Your task to perform on an android device: Open location settings Image 0: 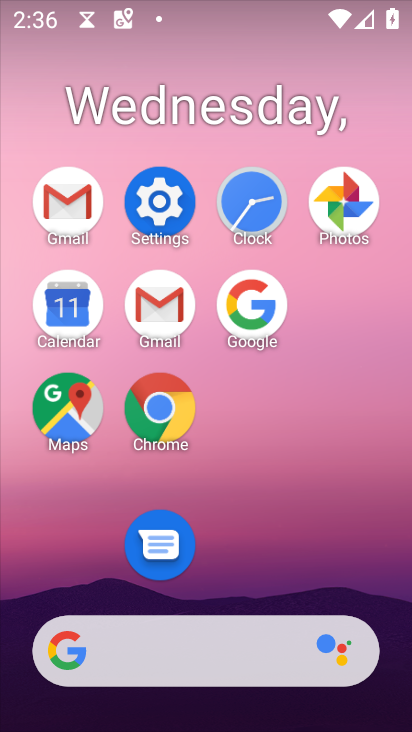
Step 0: click (189, 207)
Your task to perform on an android device: Open location settings Image 1: 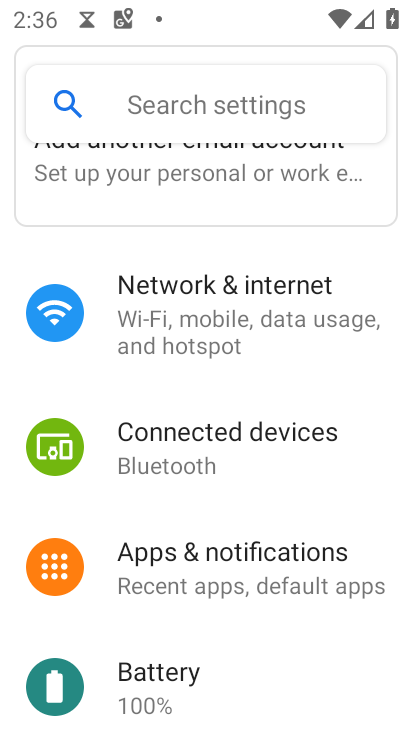
Step 1: drag from (216, 648) to (244, 297)
Your task to perform on an android device: Open location settings Image 2: 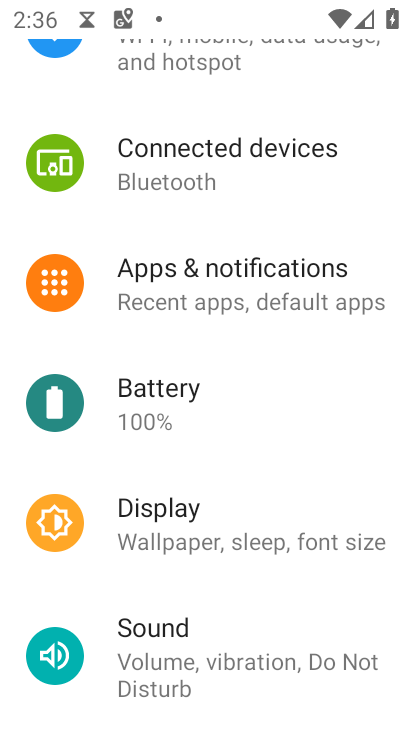
Step 2: drag from (287, 601) to (314, 203)
Your task to perform on an android device: Open location settings Image 3: 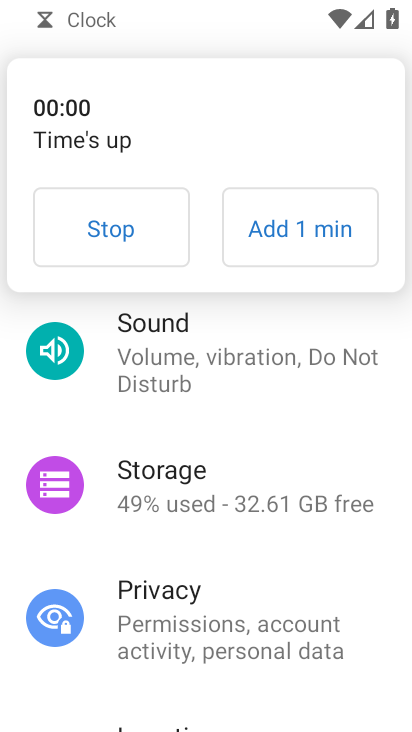
Step 3: drag from (270, 548) to (291, 188)
Your task to perform on an android device: Open location settings Image 4: 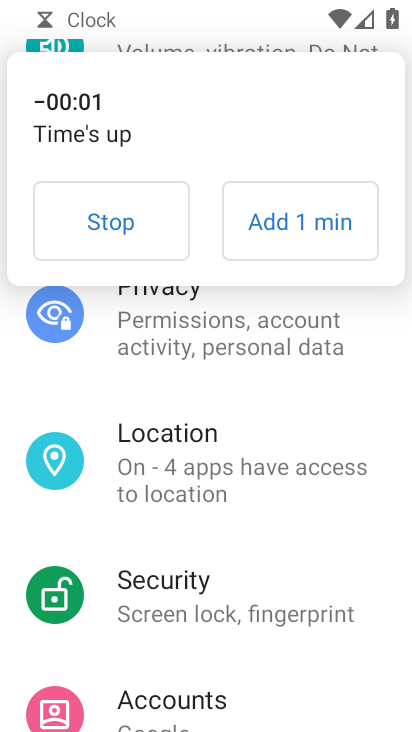
Step 4: click (52, 241)
Your task to perform on an android device: Open location settings Image 5: 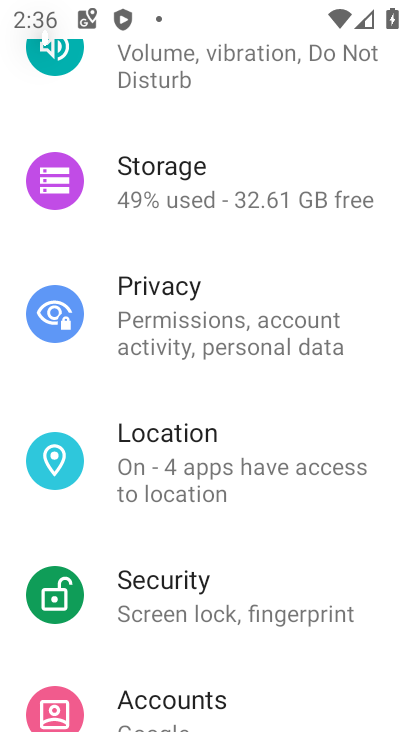
Step 5: click (191, 446)
Your task to perform on an android device: Open location settings Image 6: 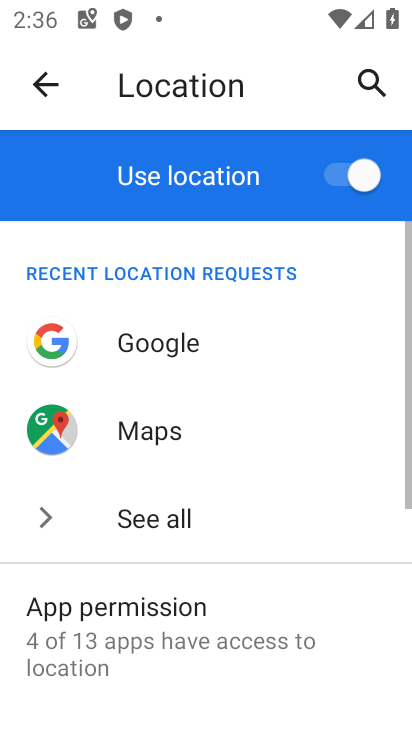
Step 6: task complete